Your task to perform on an android device: toggle translation in the chrome app Image 0: 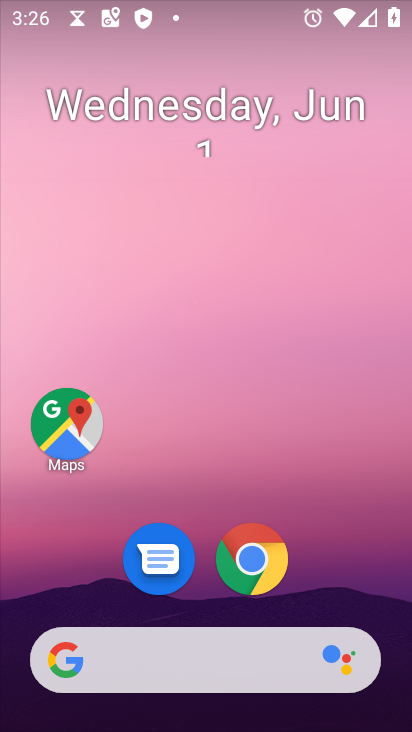
Step 0: click (243, 565)
Your task to perform on an android device: toggle translation in the chrome app Image 1: 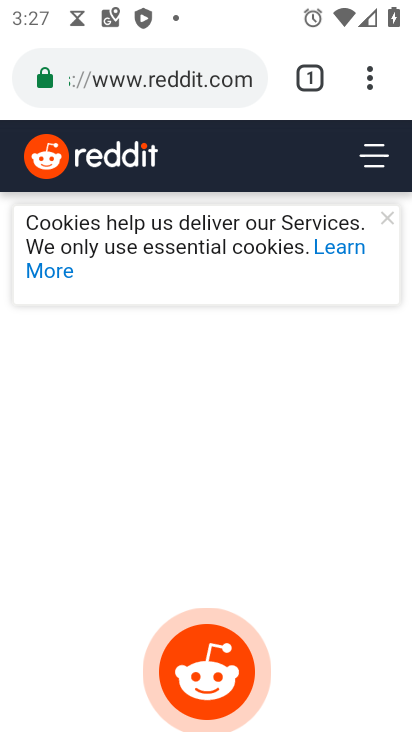
Step 1: click (362, 83)
Your task to perform on an android device: toggle translation in the chrome app Image 2: 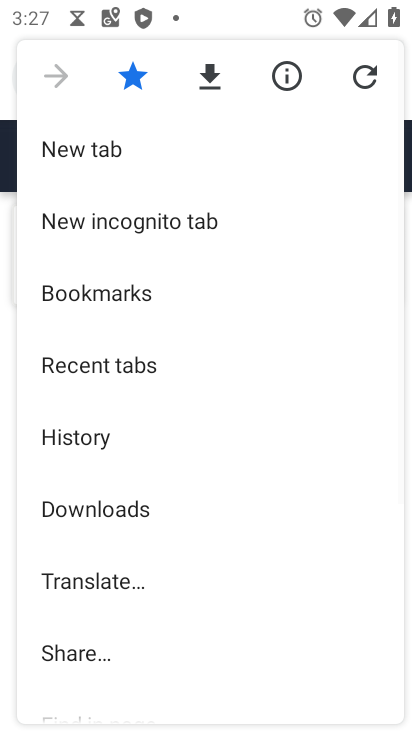
Step 2: drag from (99, 606) to (118, 213)
Your task to perform on an android device: toggle translation in the chrome app Image 3: 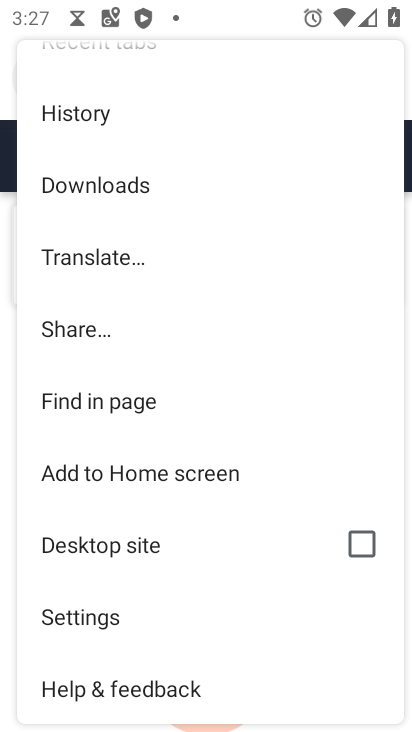
Step 3: click (122, 617)
Your task to perform on an android device: toggle translation in the chrome app Image 4: 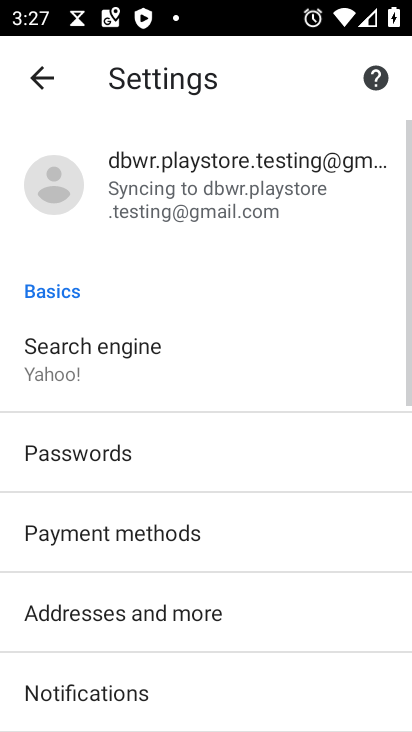
Step 4: drag from (197, 630) to (214, 494)
Your task to perform on an android device: toggle translation in the chrome app Image 5: 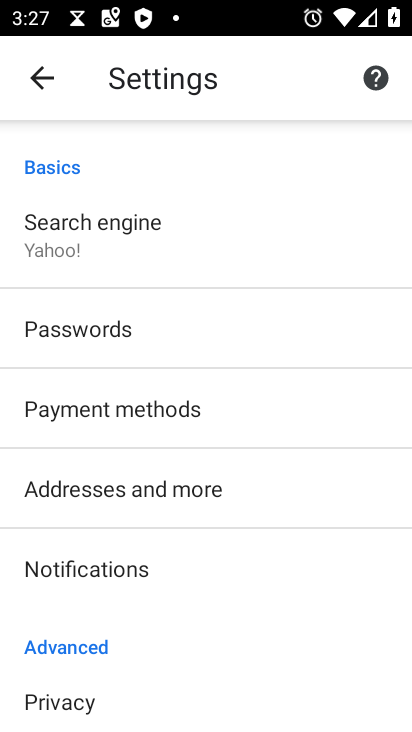
Step 5: drag from (212, 606) to (221, 491)
Your task to perform on an android device: toggle translation in the chrome app Image 6: 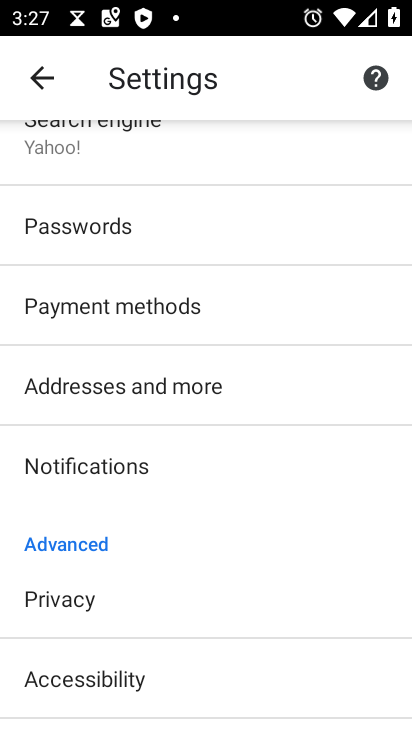
Step 6: drag from (222, 685) to (234, 569)
Your task to perform on an android device: toggle translation in the chrome app Image 7: 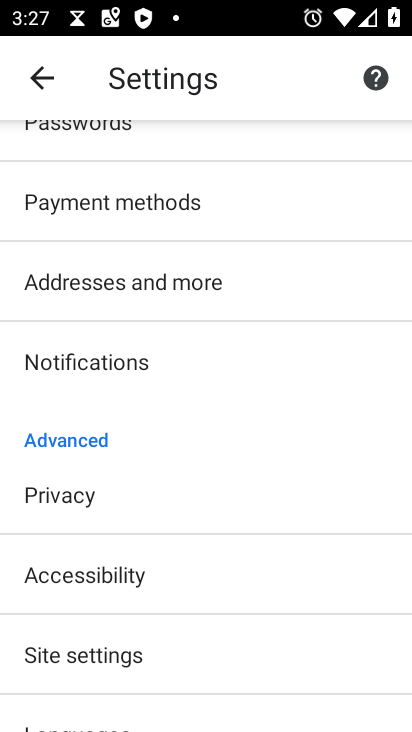
Step 7: drag from (133, 688) to (128, 560)
Your task to perform on an android device: toggle translation in the chrome app Image 8: 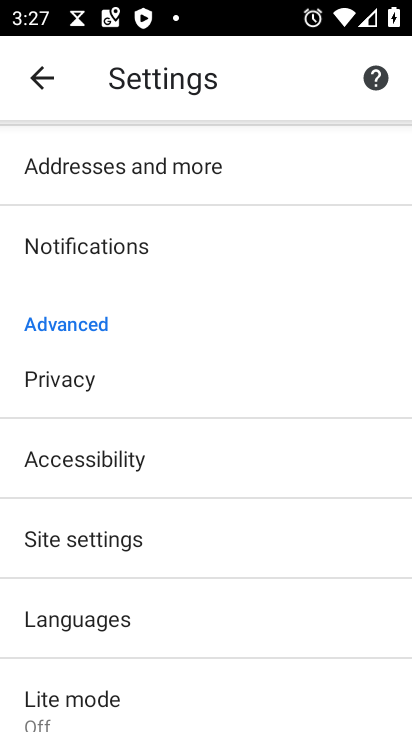
Step 8: click (77, 636)
Your task to perform on an android device: toggle translation in the chrome app Image 9: 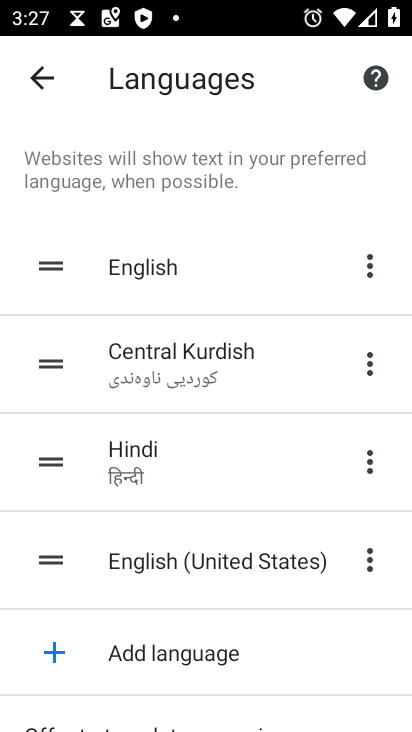
Step 9: drag from (194, 655) to (180, 495)
Your task to perform on an android device: toggle translation in the chrome app Image 10: 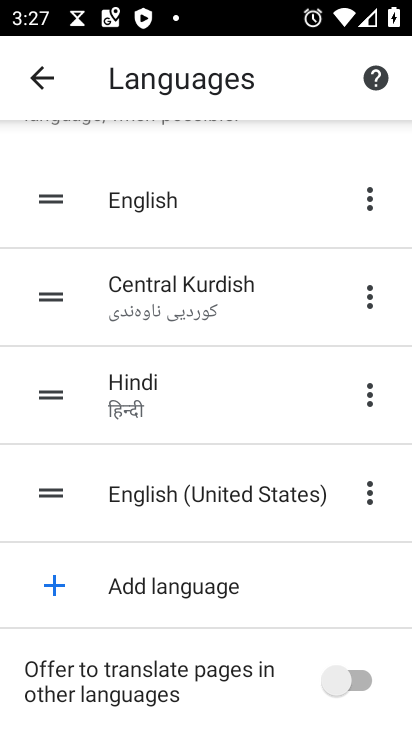
Step 10: click (341, 676)
Your task to perform on an android device: toggle translation in the chrome app Image 11: 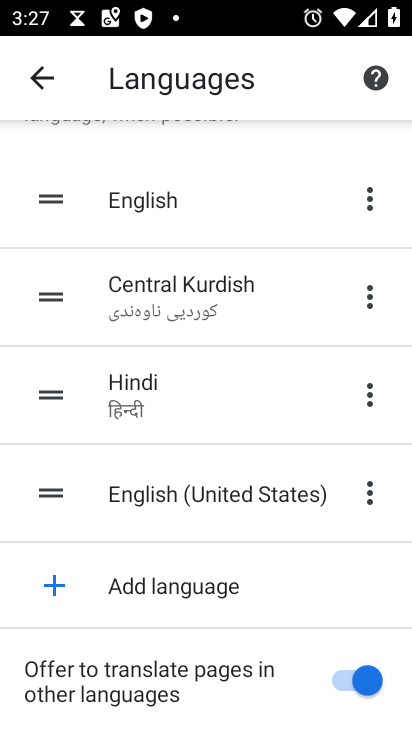
Step 11: task complete